Your task to perform on an android device: stop showing notifications on the lock screen Image 0: 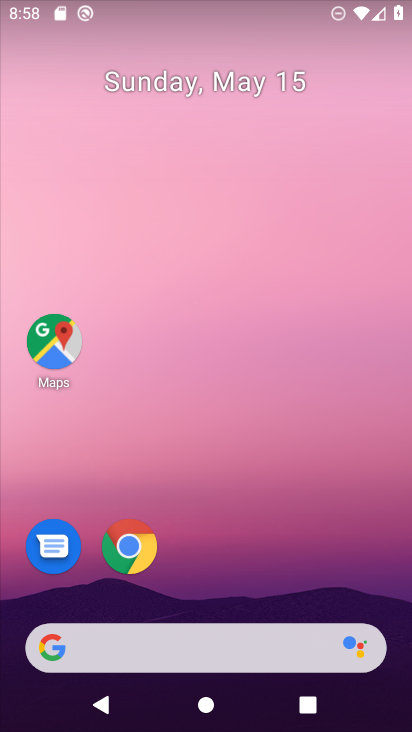
Step 0: drag from (313, 532) to (261, 35)
Your task to perform on an android device: stop showing notifications on the lock screen Image 1: 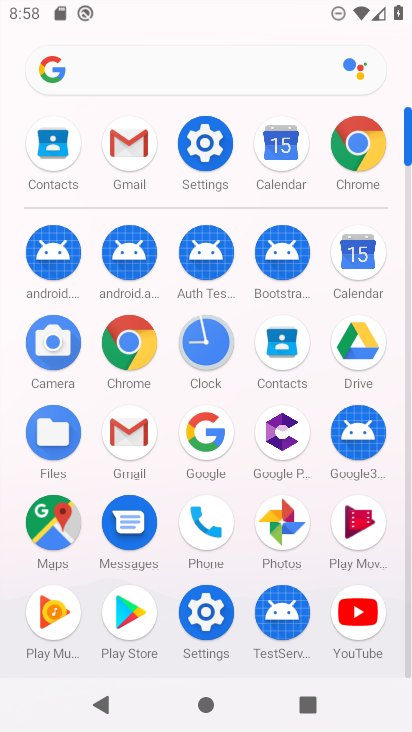
Step 1: click (207, 139)
Your task to perform on an android device: stop showing notifications on the lock screen Image 2: 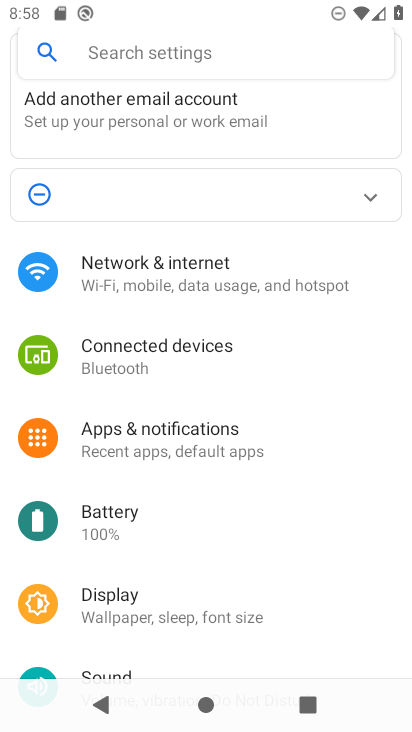
Step 2: click (216, 438)
Your task to perform on an android device: stop showing notifications on the lock screen Image 3: 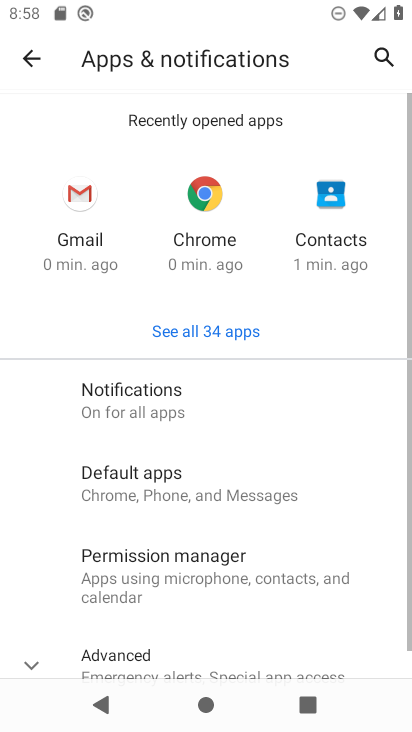
Step 3: drag from (270, 632) to (268, 176)
Your task to perform on an android device: stop showing notifications on the lock screen Image 4: 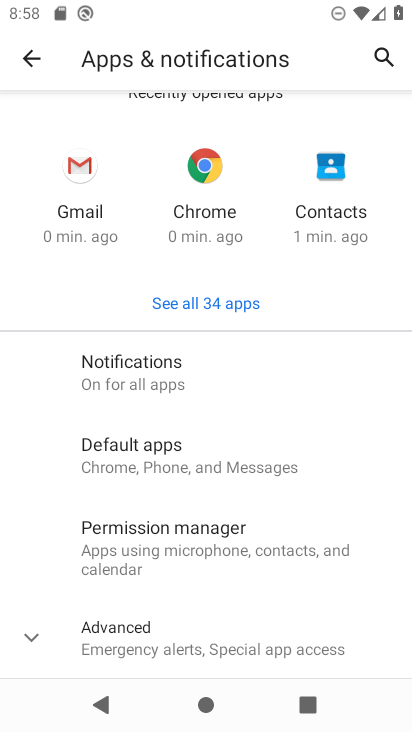
Step 4: click (158, 365)
Your task to perform on an android device: stop showing notifications on the lock screen Image 5: 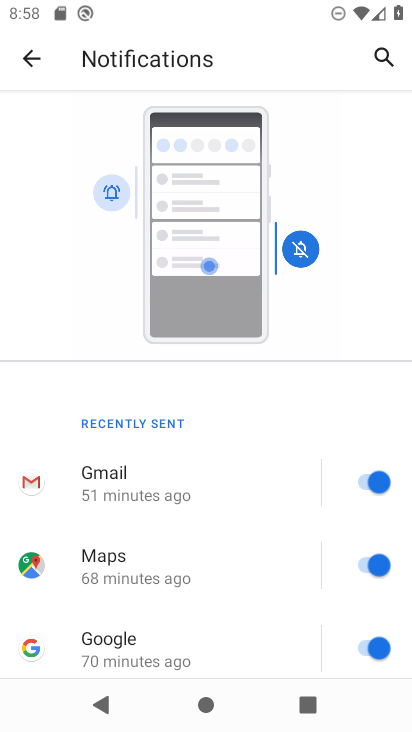
Step 5: drag from (277, 631) to (267, 183)
Your task to perform on an android device: stop showing notifications on the lock screen Image 6: 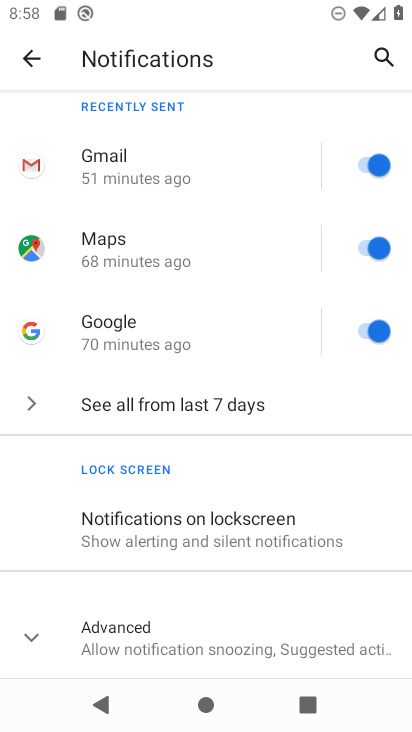
Step 6: click (185, 517)
Your task to perform on an android device: stop showing notifications on the lock screen Image 7: 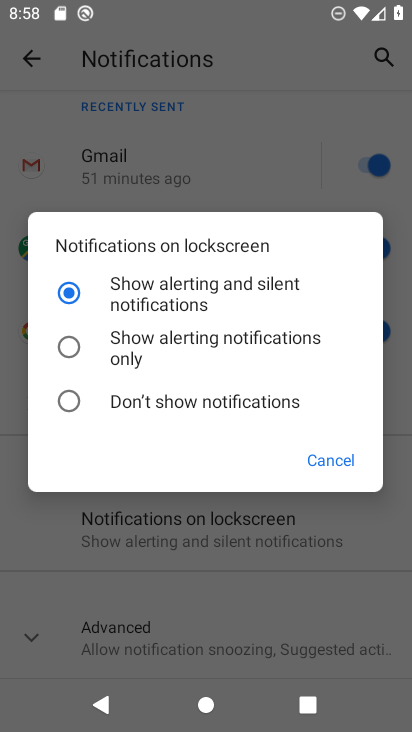
Step 7: click (69, 397)
Your task to perform on an android device: stop showing notifications on the lock screen Image 8: 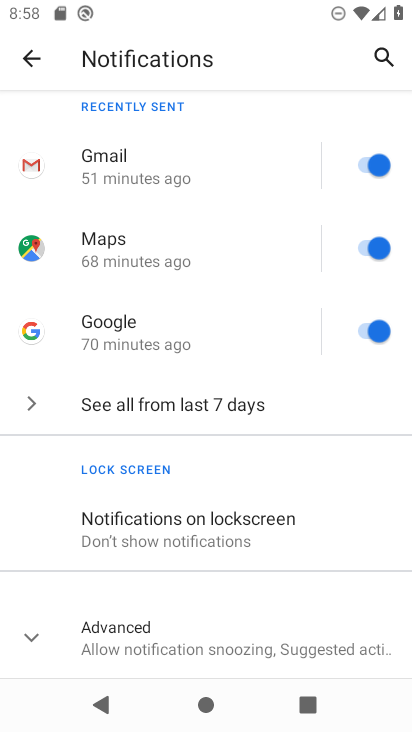
Step 8: task complete